Your task to perform on an android device: add a contact in the contacts app Image 0: 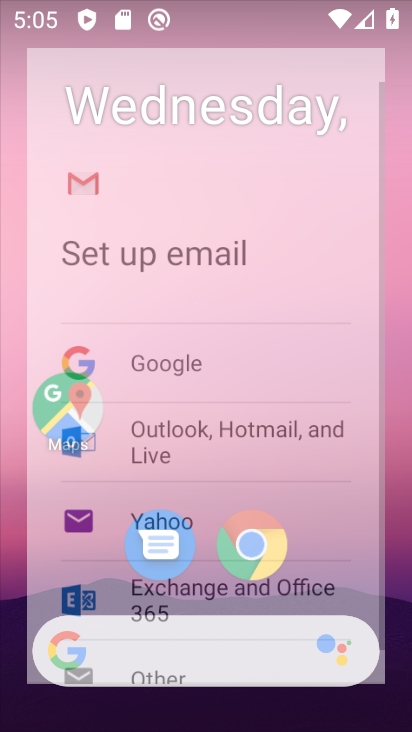
Step 0: drag from (211, 510) to (279, 83)
Your task to perform on an android device: add a contact in the contacts app Image 1: 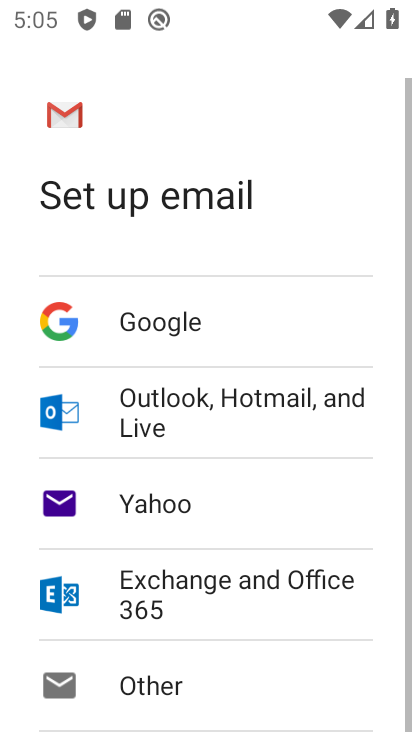
Step 1: press back button
Your task to perform on an android device: add a contact in the contacts app Image 2: 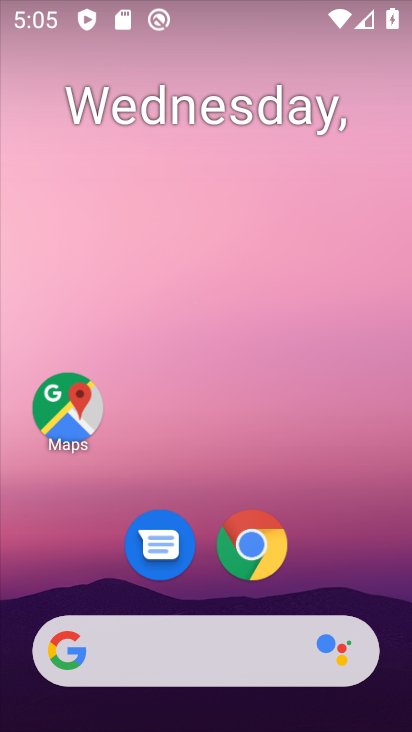
Step 2: drag from (145, 613) to (271, 27)
Your task to perform on an android device: add a contact in the contacts app Image 3: 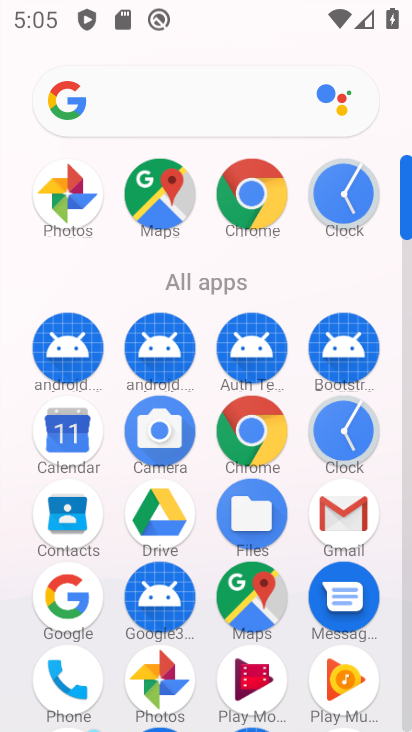
Step 3: click (53, 517)
Your task to perform on an android device: add a contact in the contacts app Image 4: 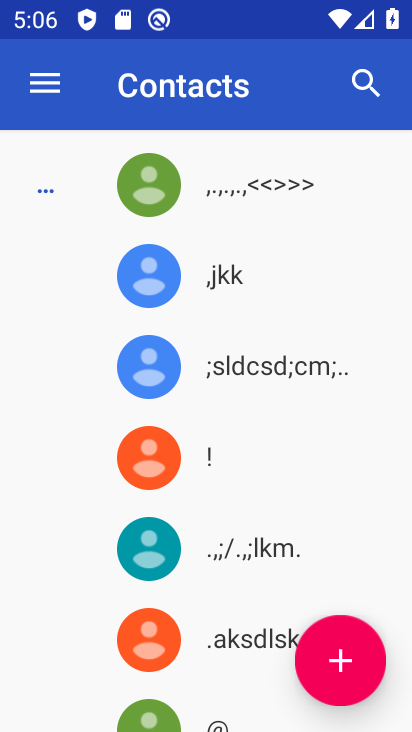
Step 4: click (338, 660)
Your task to perform on an android device: add a contact in the contacts app Image 5: 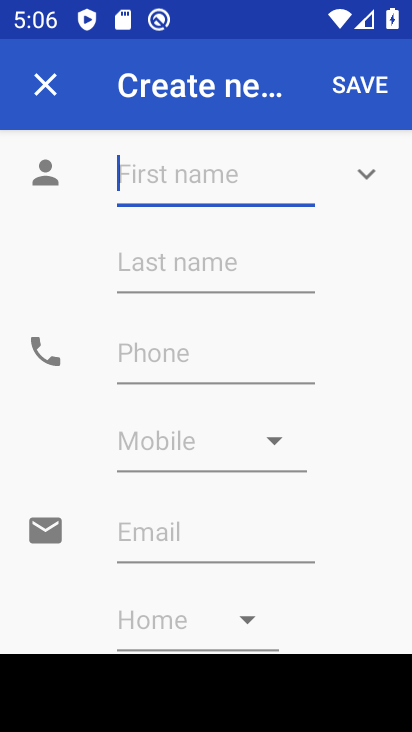
Step 5: type "ghv"
Your task to perform on an android device: add a contact in the contacts app Image 6: 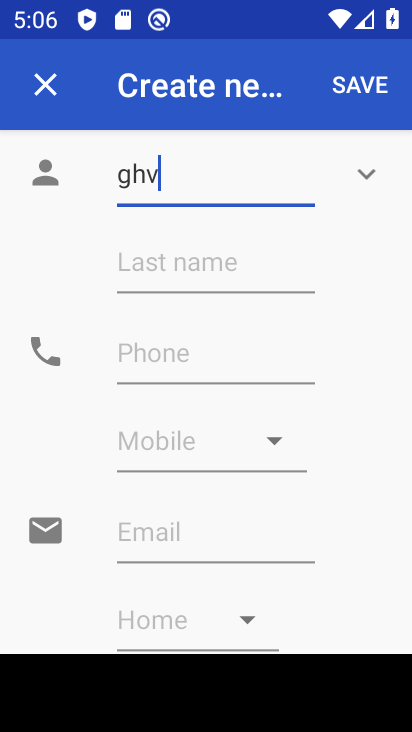
Step 6: click (150, 334)
Your task to perform on an android device: add a contact in the contacts app Image 7: 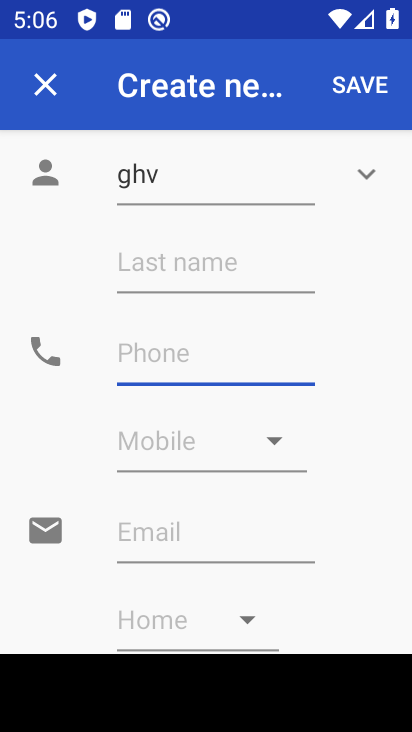
Step 7: type "67676"
Your task to perform on an android device: add a contact in the contacts app Image 8: 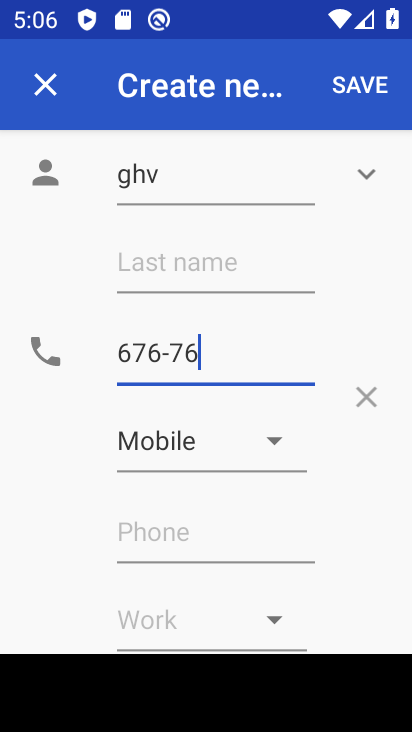
Step 8: click (359, 88)
Your task to perform on an android device: add a contact in the contacts app Image 9: 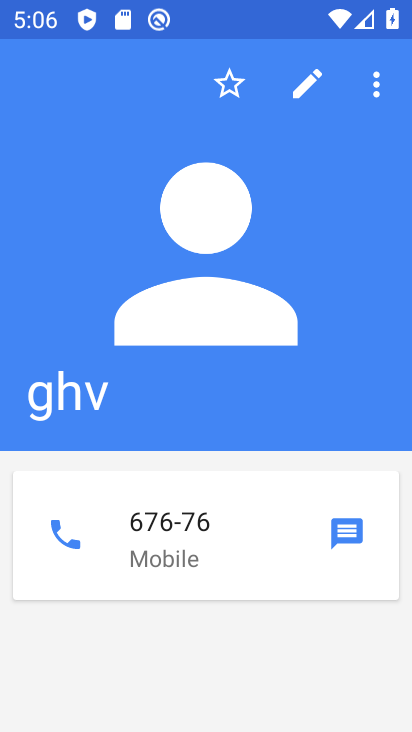
Step 9: task complete